Your task to perform on an android device: check android version Image 0: 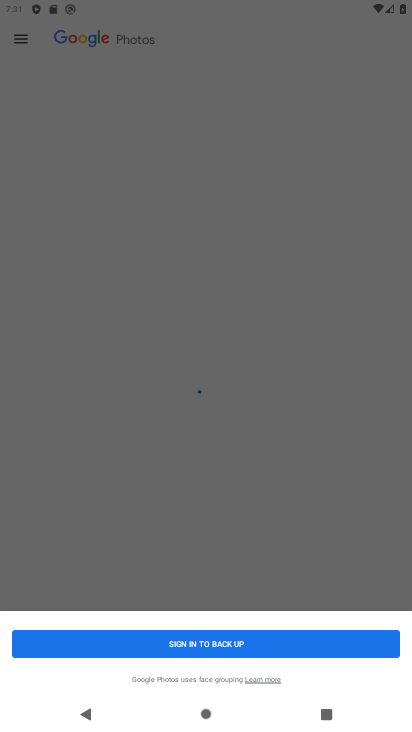
Step 0: press home button
Your task to perform on an android device: check android version Image 1: 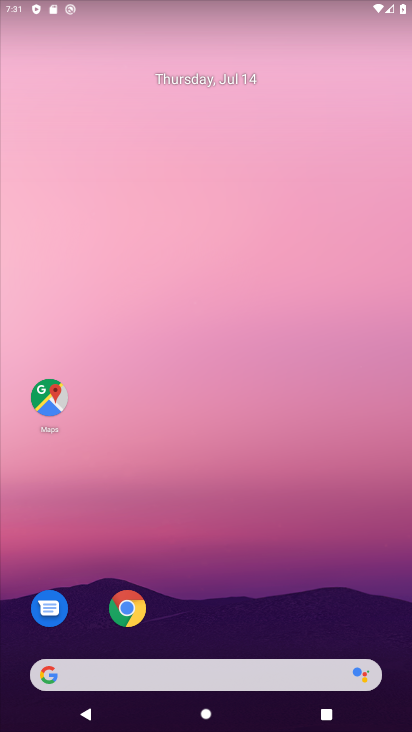
Step 1: drag from (229, 561) to (169, 7)
Your task to perform on an android device: check android version Image 2: 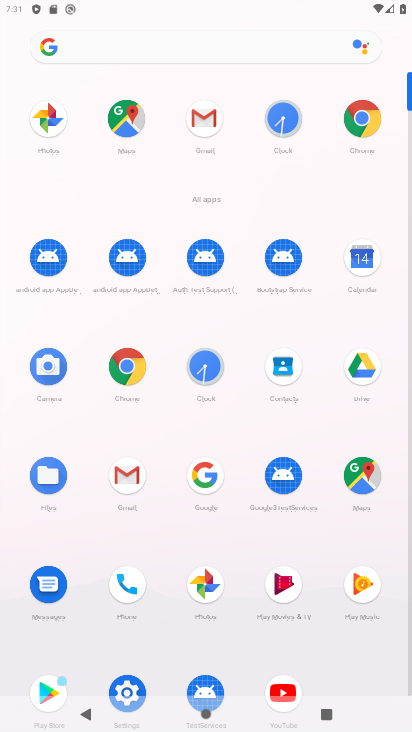
Step 2: click (128, 685)
Your task to perform on an android device: check android version Image 3: 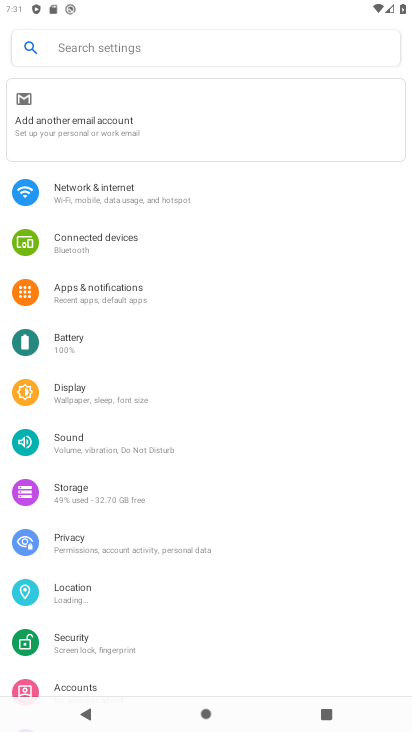
Step 3: drag from (280, 607) to (244, 127)
Your task to perform on an android device: check android version Image 4: 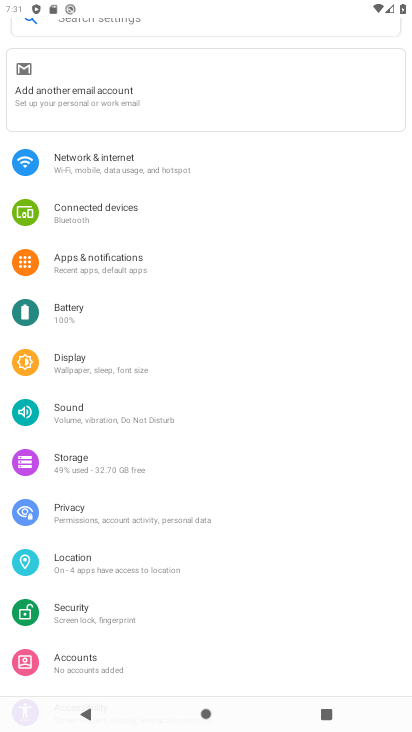
Step 4: drag from (270, 584) to (270, 141)
Your task to perform on an android device: check android version Image 5: 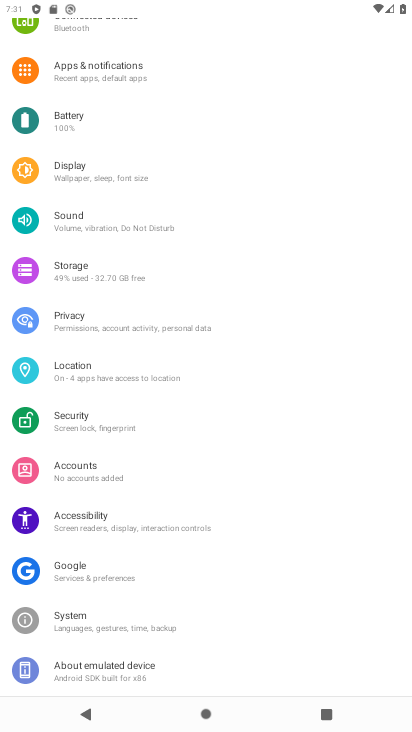
Step 5: click (72, 667)
Your task to perform on an android device: check android version Image 6: 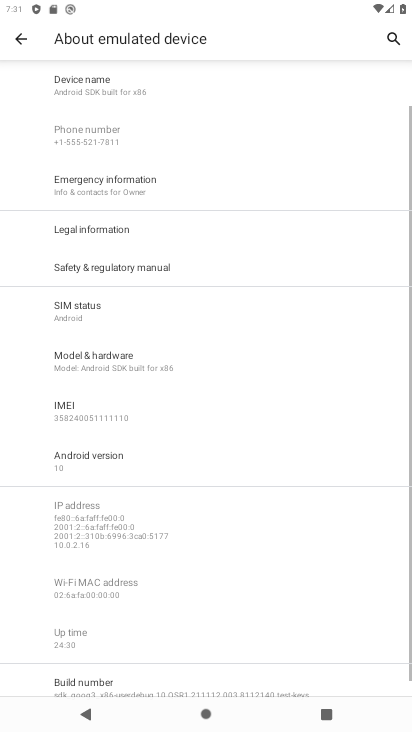
Step 6: task complete